Your task to perform on an android device: Open settings on Google Maps Image 0: 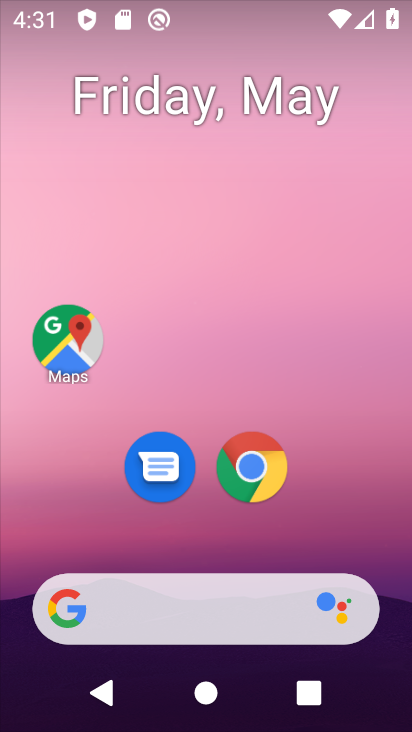
Step 0: click (68, 349)
Your task to perform on an android device: Open settings on Google Maps Image 1: 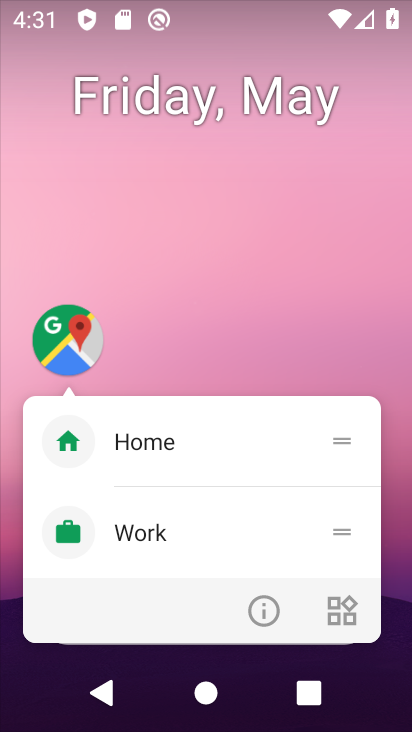
Step 1: click (68, 349)
Your task to perform on an android device: Open settings on Google Maps Image 2: 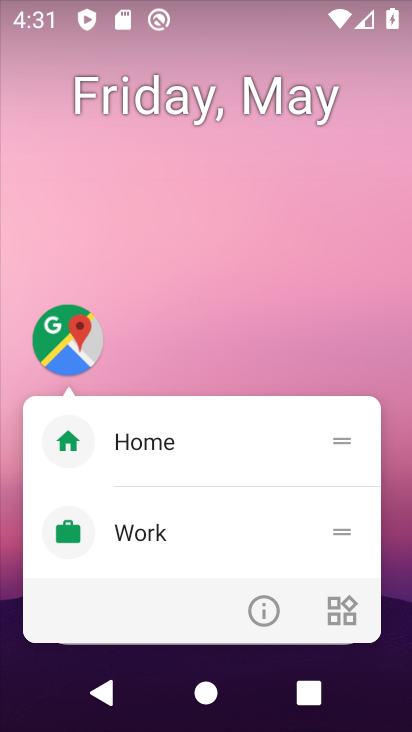
Step 2: click (72, 342)
Your task to perform on an android device: Open settings on Google Maps Image 3: 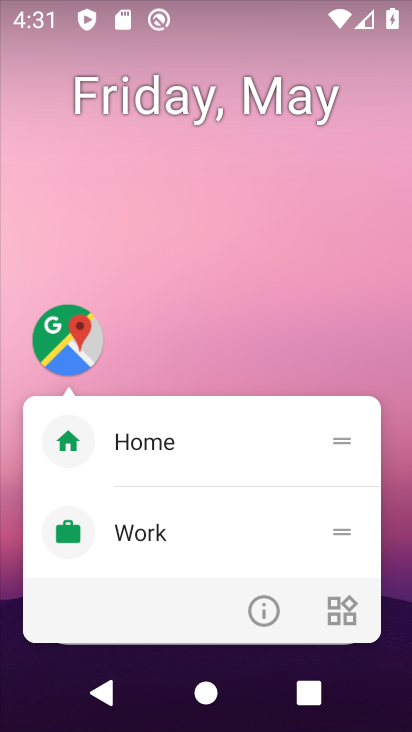
Step 3: click (72, 342)
Your task to perform on an android device: Open settings on Google Maps Image 4: 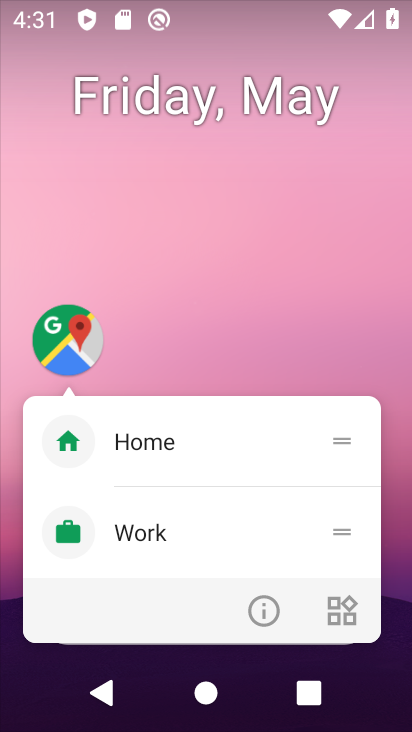
Step 4: drag from (385, 375) to (361, 3)
Your task to perform on an android device: Open settings on Google Maps Image 5: 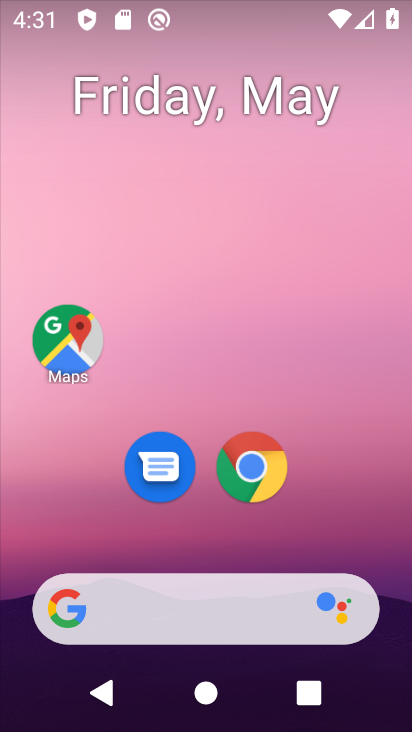
Step 5: drag from (354, 509) to (311, 92)
Your task to perform on an android device: Open settings on Google Maps Image 6: 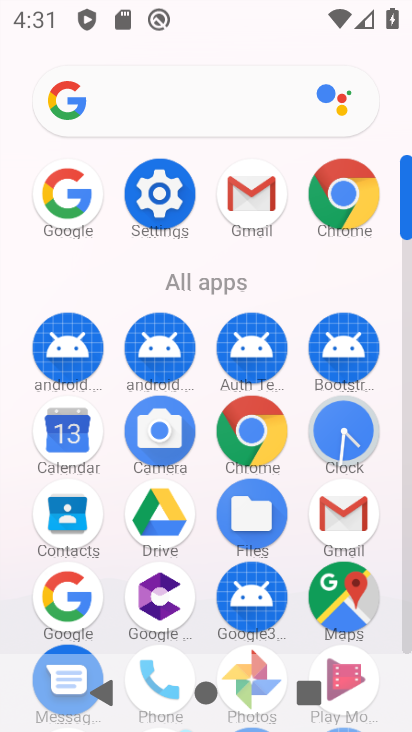
Step 6: click (351, 594)
Your task to perform on an android device: Open settings on Google Maps Image 7: 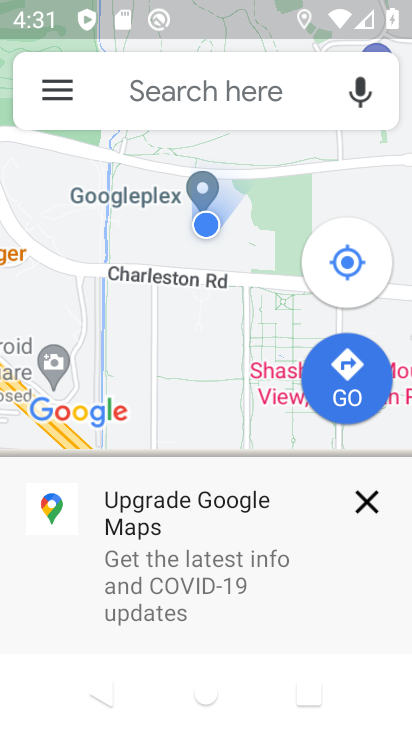
Step 7: click (64, 94)
Your task to perform on an android device: Open settings on Google Maps Image 8: 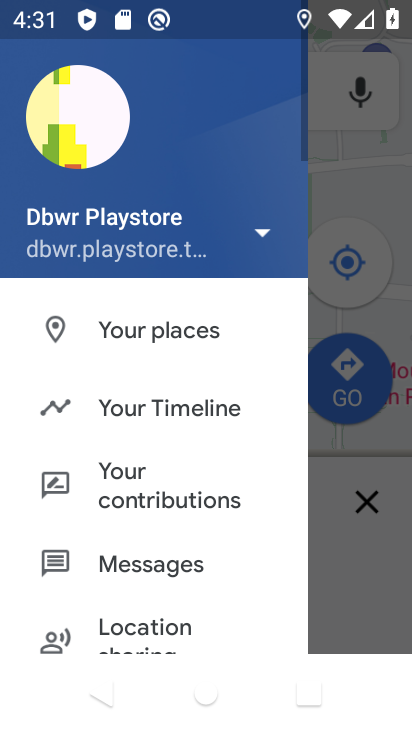
Step 8: drag from (203, 216) to (217, 48)
Your task to perform on an android device: Open settings on Google Maps Image 9: 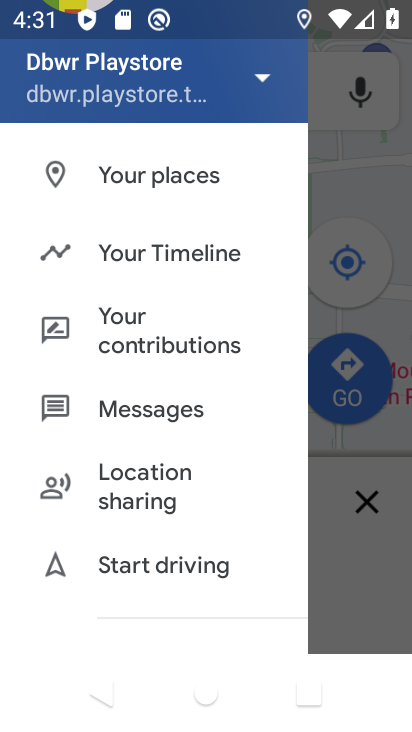
Step 9: drag from (166, 555) to (242, 223)
Your task to perform on an android device: Open settings on Google Maps Image 10: 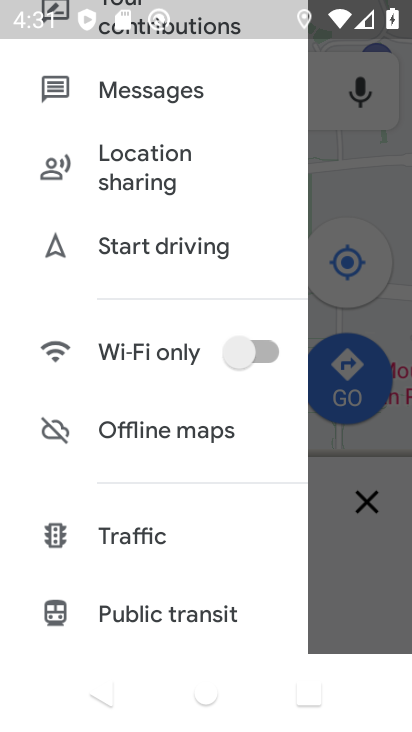
Step 10: drag from (162, 562) to (229, 252)
Your task to perform on an android device: Open settings on Google Maps Image 11: 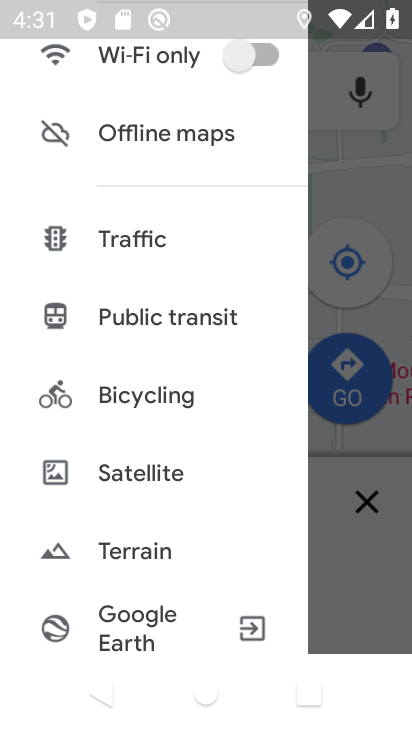
Step 11: drag from (145, 585) to (205, 296)
Your task to perform on an android device: Open settings on Google Maps Image 12: 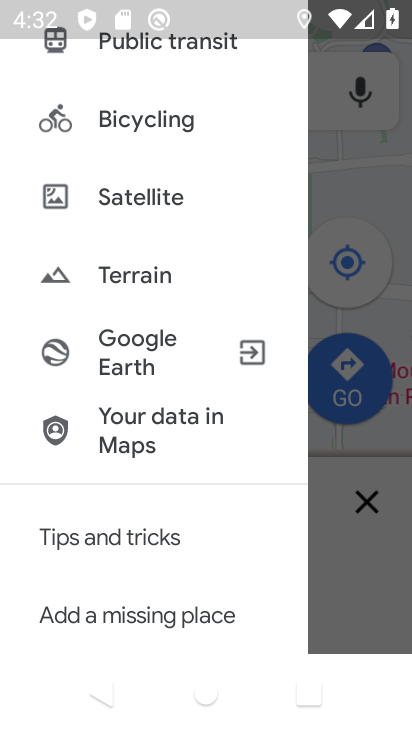
Step 12: drag from (129, 583) to (202, 358)
Your task to perform on an android device: Open settings on Google Maps Image 13: 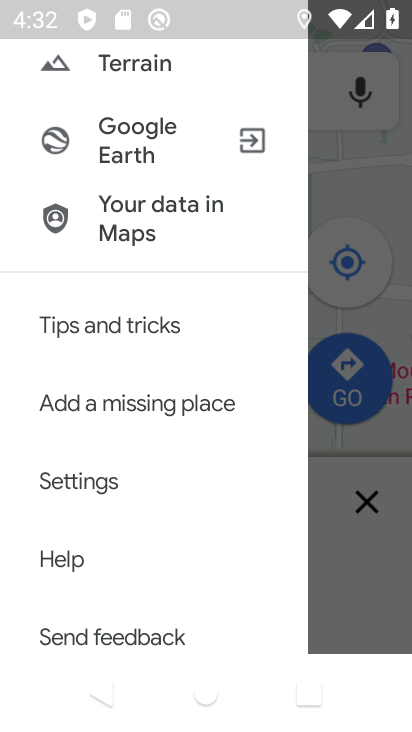
Step 13: click (114, 480)
Your task to perform on an android device: Open settings on Google Maps Image 14: 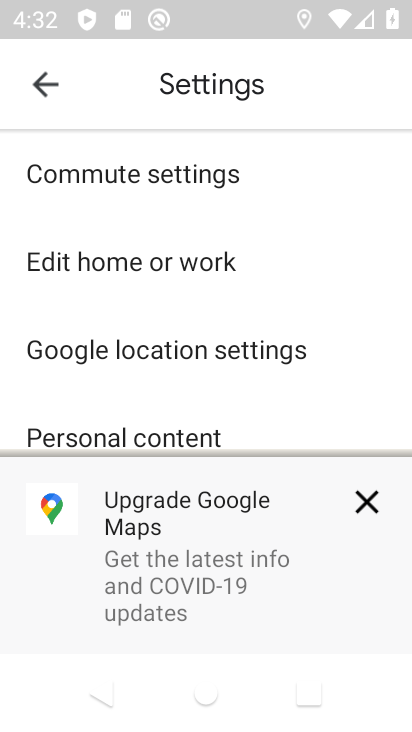
Step 14: task complete